Your task to perform on an android device: Open eBay Image 0: 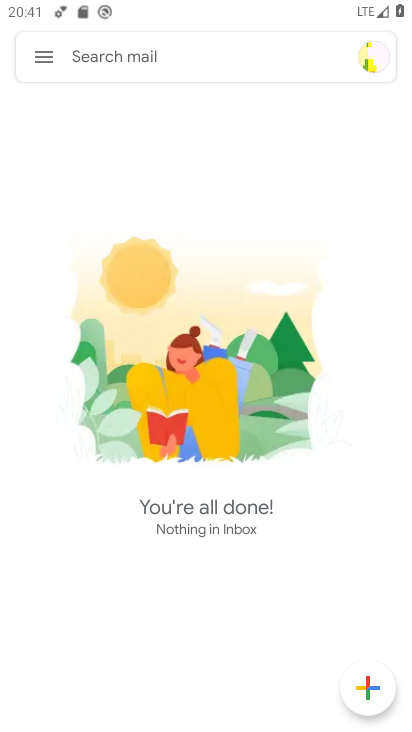
Step 0: press home button
Your task to perform on an android device: Open eBay Image 1: 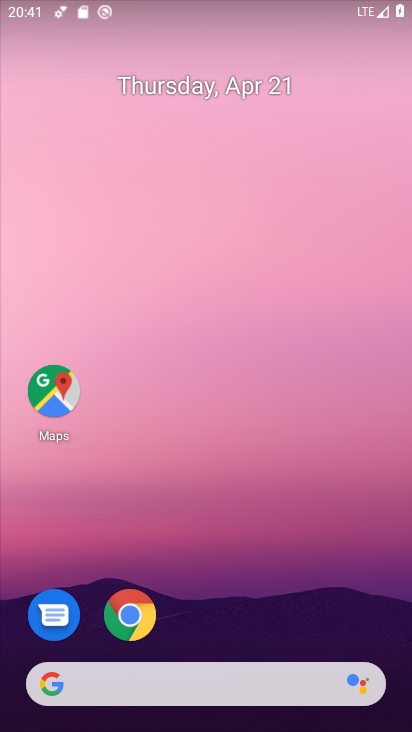
Step 1: click (172, 669)
Your task to perform on an android device: Open eBay Image 2: 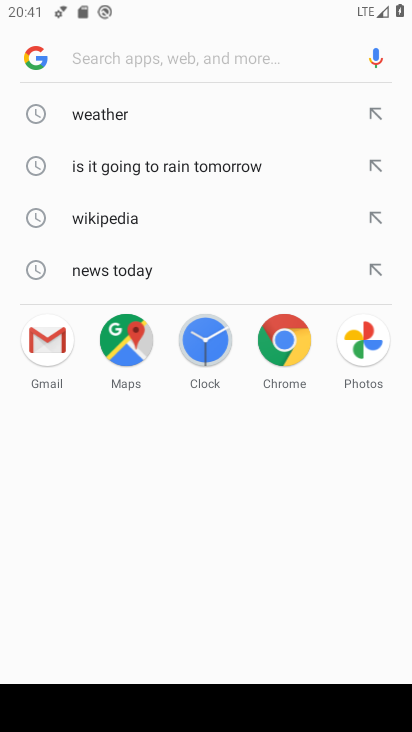
Step 2: click (173, 57)
Your task to perform on an android device: Open eBay Image 3: 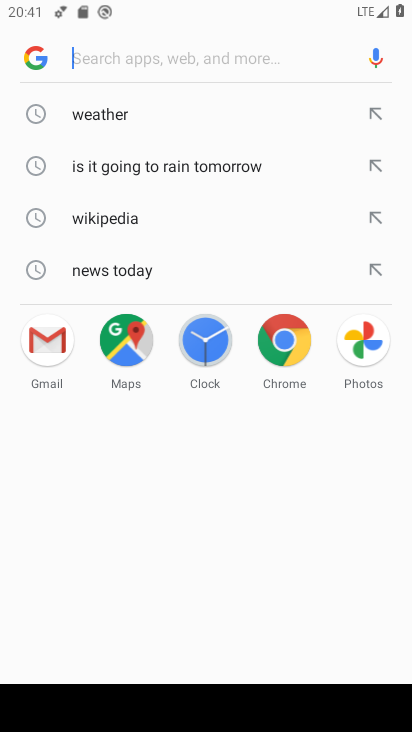
Step 3: type "ebay"
Your task to perform on an android device: Open eBay Image 4: 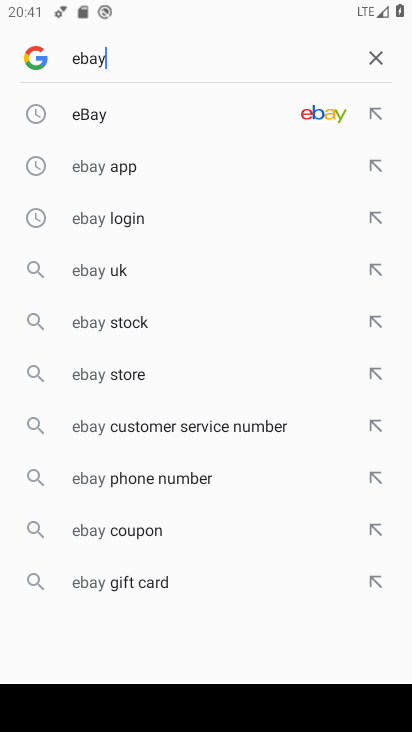
Step 4: click (149, 122)
Your task to perform on an android device: Open eBay Image 5: 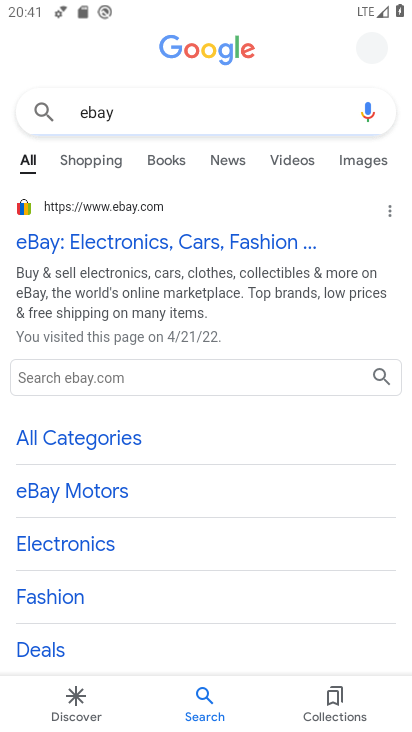
Step 5: drag from (274, 539) to (310, 232)
Your task to perform on an android device: Open eBay Image 6: 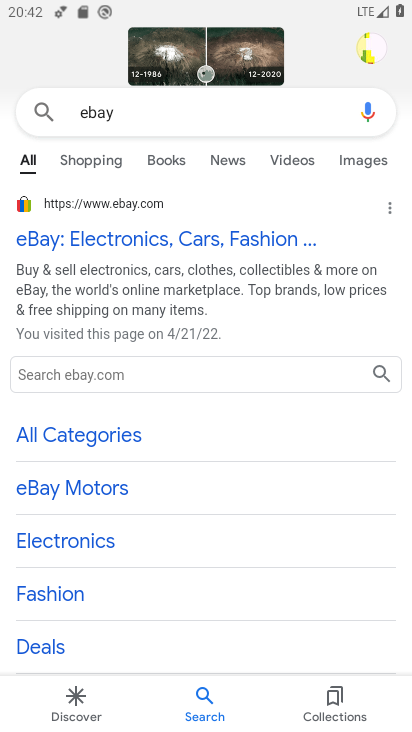
Step 6: click (149, 235)
Your task to perform on an android device: Open eBay Image 7: 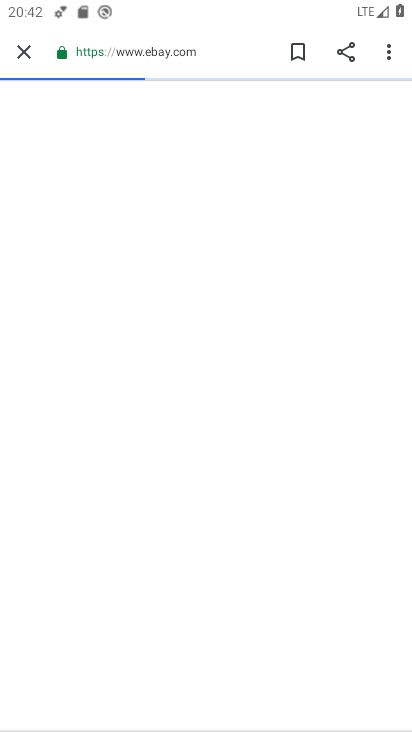
Step 7: task complete